Your task to perform on an android device: move an email to a new category in the gmail app Image 0: 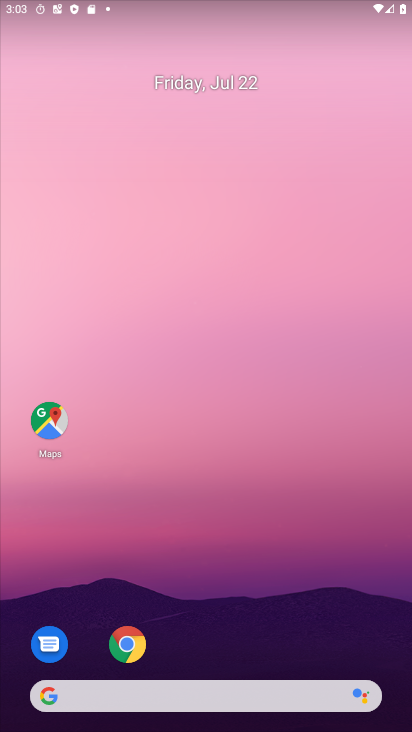
Step 0: press home button
Your task to perform on an android device: move an email to a new category in the gmail app Image 1: 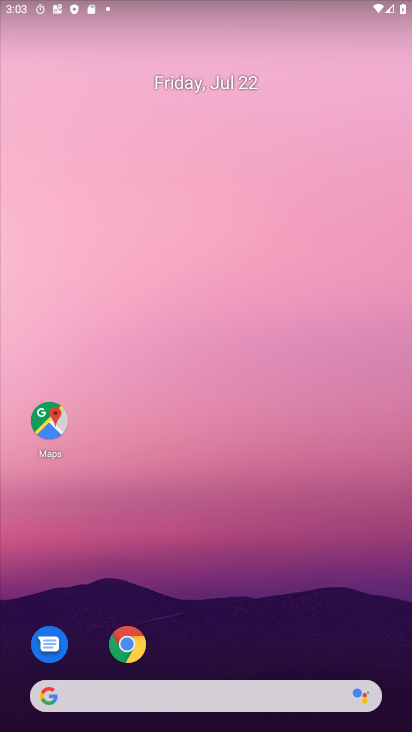
Step 1: drag from (268, 158) to (277, 7)
Your task to perform on an android device: move an email to a new category in the gmail app Image 2: 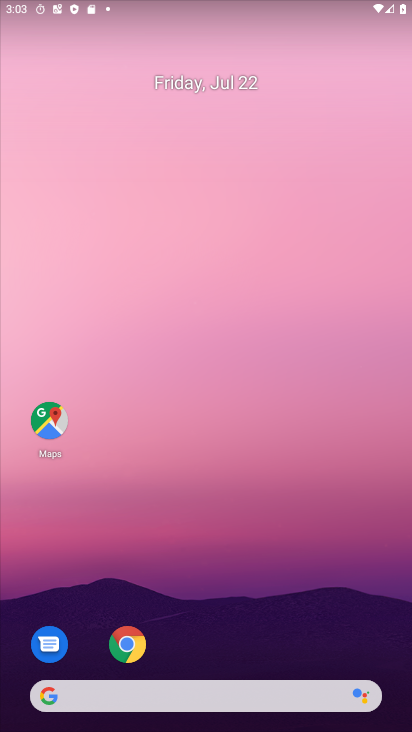
Step 2: drag from (228, 638) to (308, 138)
Your task to perform on an android device: move an email to a new category in the gmail app Image 3: 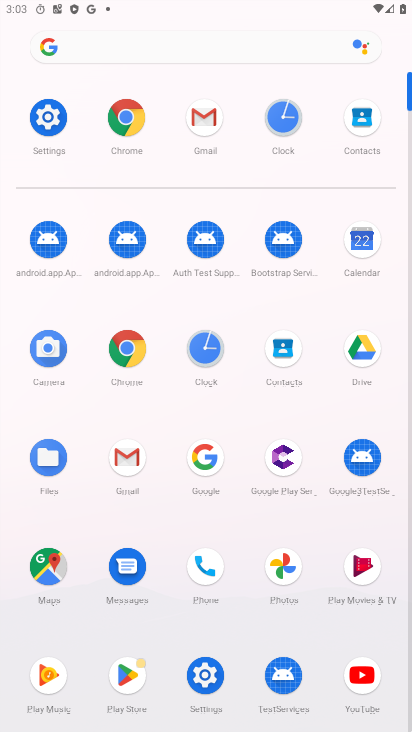
Step 3: click (216, 117)
Your task to perform on an android device: move an email to a new category in the gmail app Image 4: 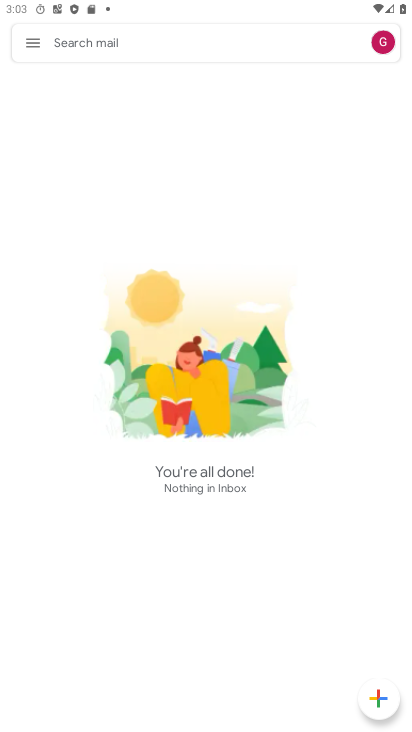
Step 4: click (36, 41)
Your task to perform on an android device: move an email to a new category in the gmail app Image 5: 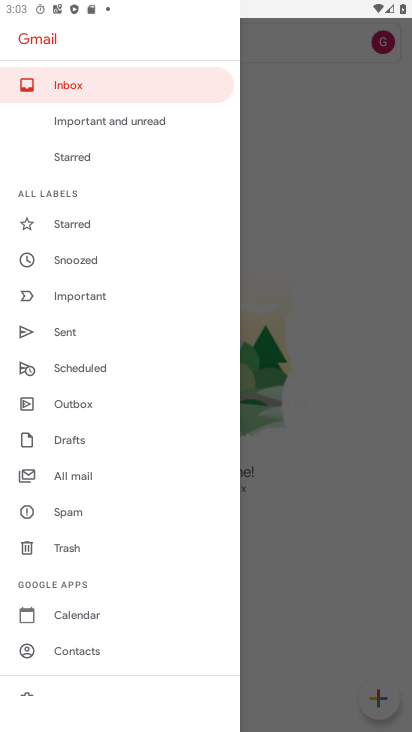
Step 5: click (77, 479)
Your task to perform on an android device: move an email to a new category in the gmail app Image 6: 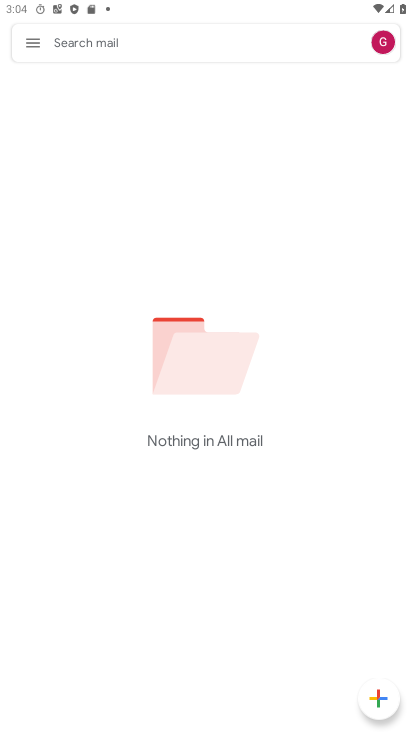
Step 6: task complete